Your task to perform on an android device: Open battery settings Image 0: 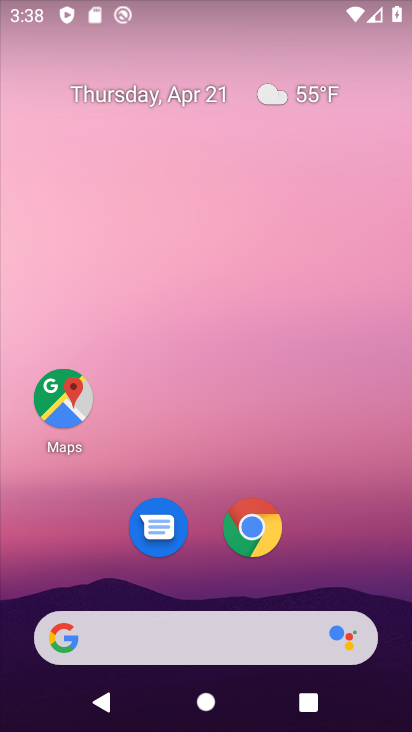
Step 0: click (293, 70)
Your task to perform on an android device: Open battery settings Image 1: 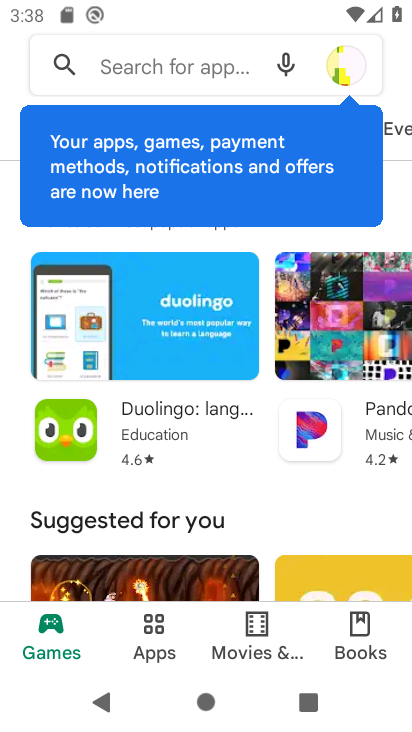
Step 1: press home button
Your task to perform on an android device: Open battery settings Image 2: 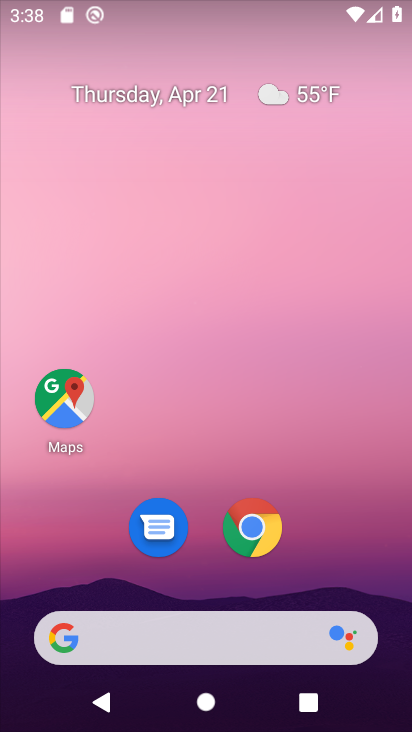
Step 2: drag from (297, 537) to (337, 162)
Your task to perform on an android device: Open battery settings Image 3: 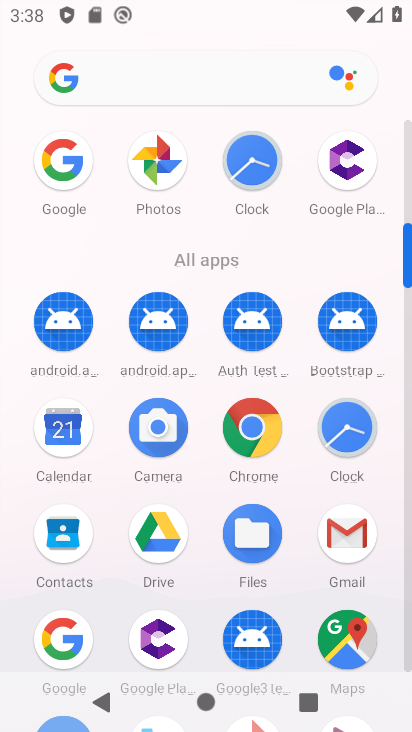
Step 3: click (67, 545)
Your task to perform on an android device: Open battery settings Image 4: 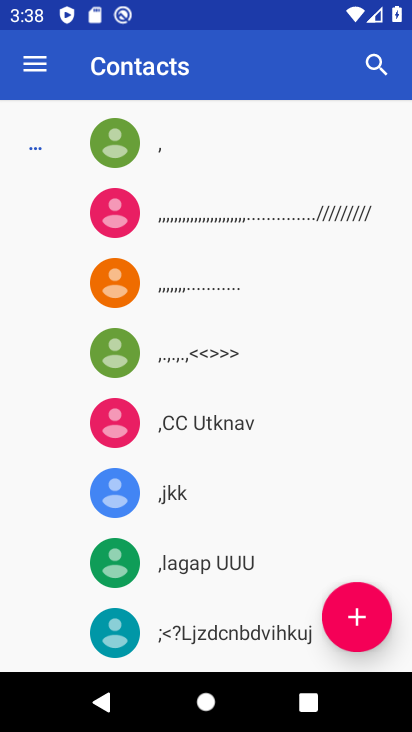
Step 4: click (361, 638)
Your task to perform on an android device: Open battery settings Image 5: 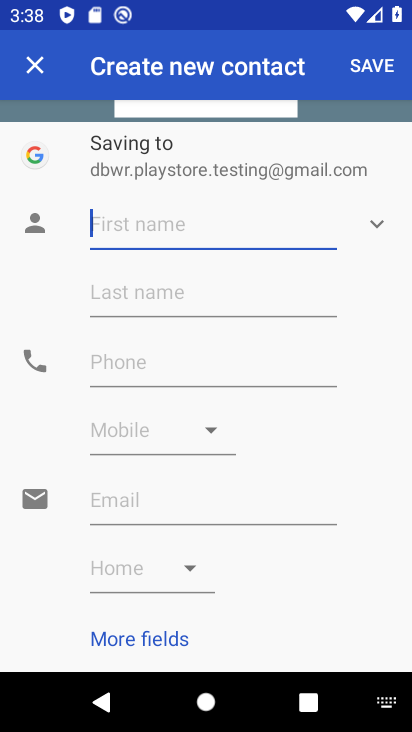
Step 5: click (186, 218)
Your task to perform on an android device: Open battery settings Image 6: 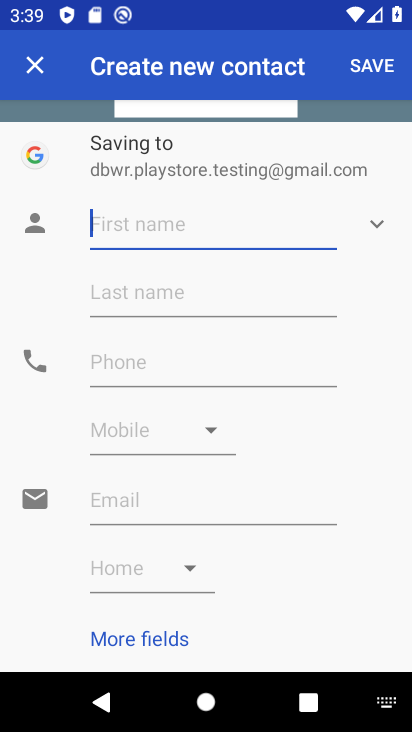
Step 6: type "Jinnah"
Your task to perform on an android device: Open battery settings Image 7: 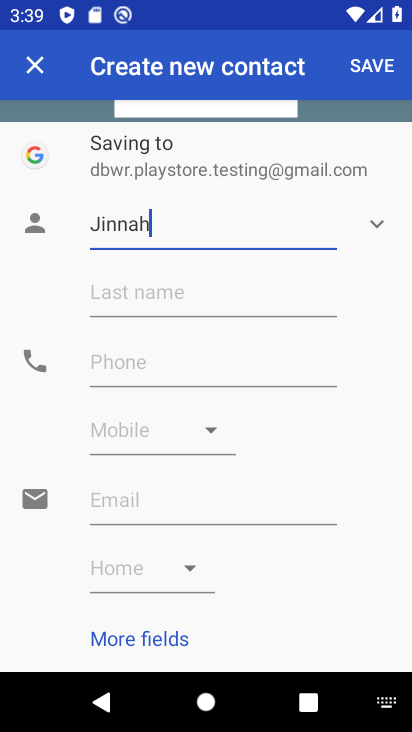
Step 7: click (154, 383)
Your task to perform on an android device: Open battery settings Image 8: 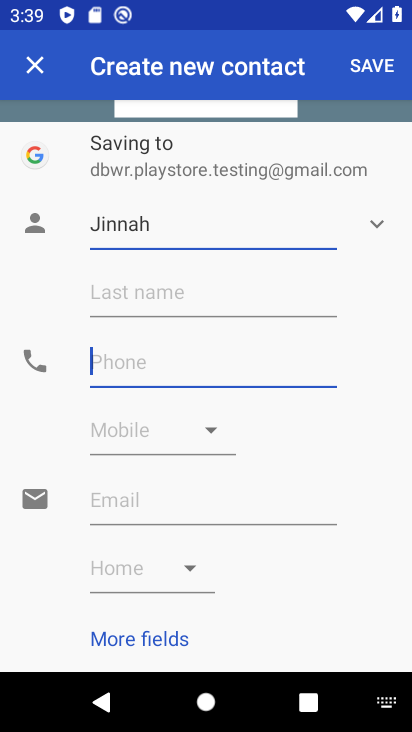
Step 8: click (160, 378)
Your task to perform on an android device: Open battery settings Image 9: 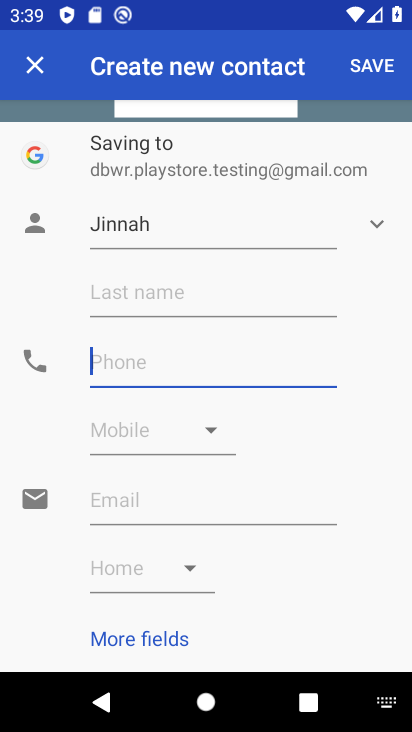
Step 9: type "8908908909"
Your task to perform on an android device: Open battery settings Image 10: 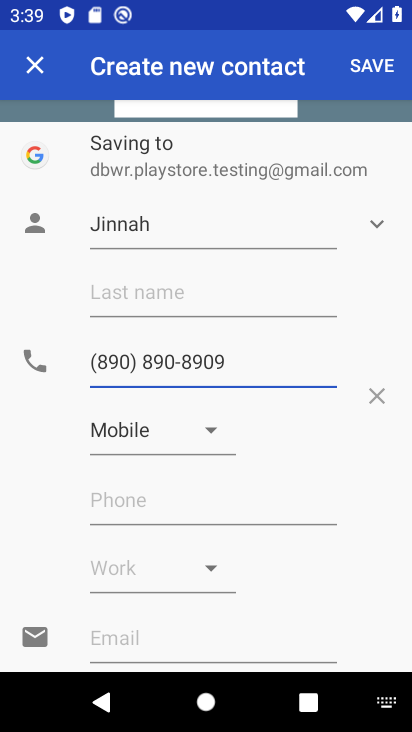
Step 10: click (372, 81)
Your task to perform on an android device: Open battery settings Image 11: 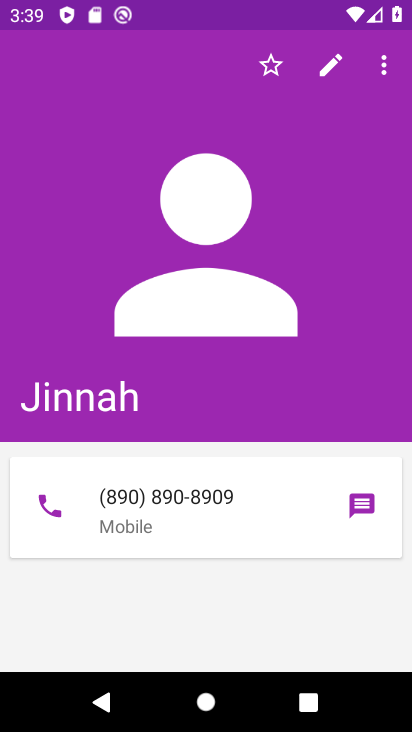
Step 11: task complete